Your task to perform on an android device: turn on sleep mode Image 0: 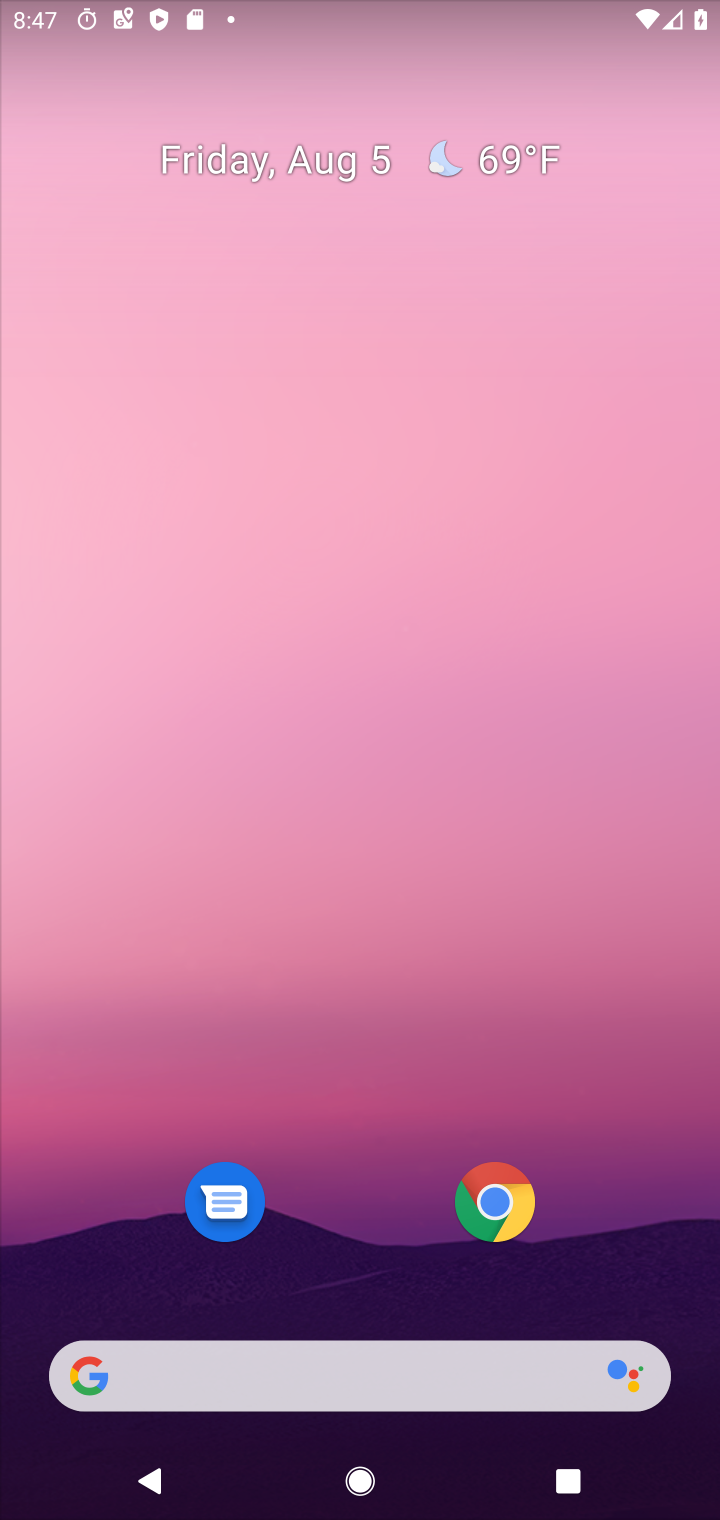
Step 0: press home button
Your task to perform on an android device: turn on sleep mode Image 1: 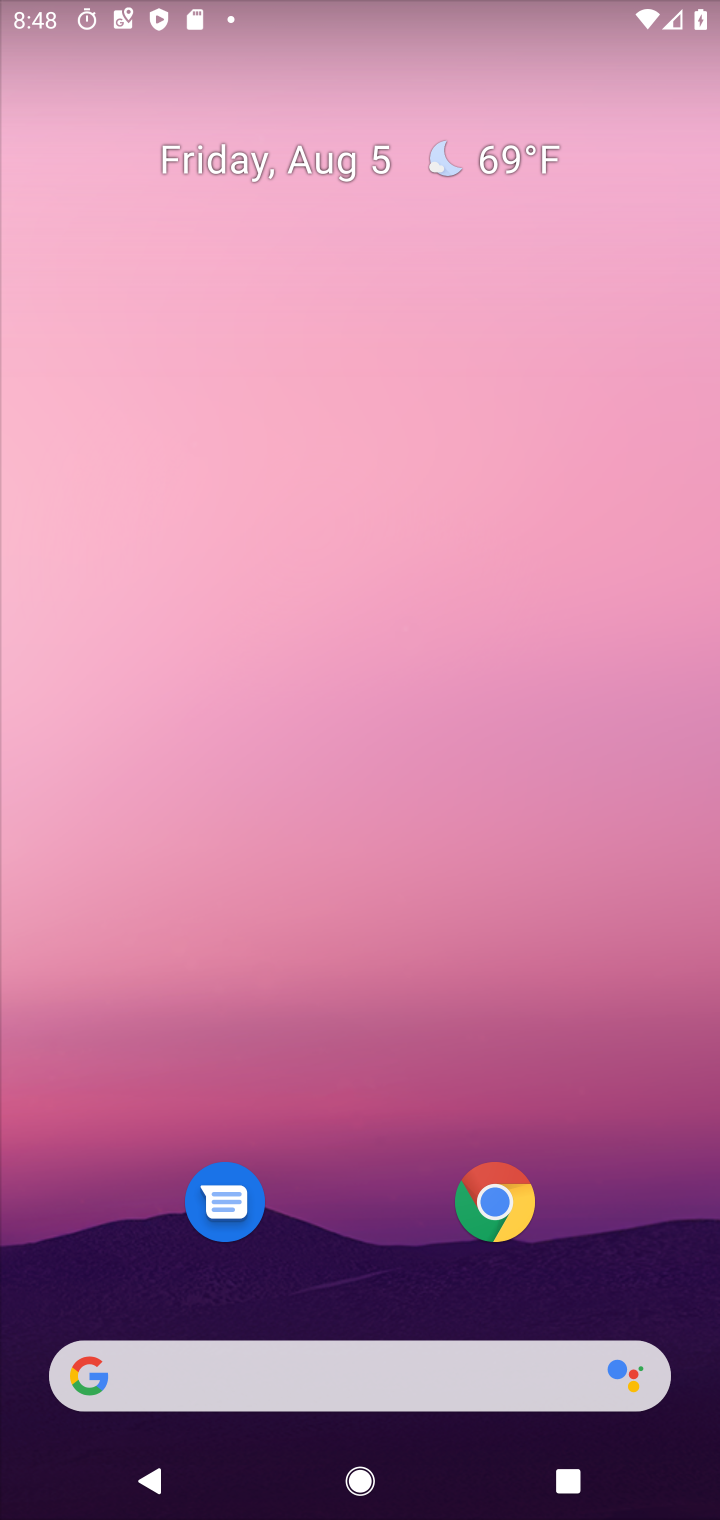
Step 1: drag from (418, 1132) to (314, 209)
Your task to perform on an android device: turn on sleep mode Image 2: 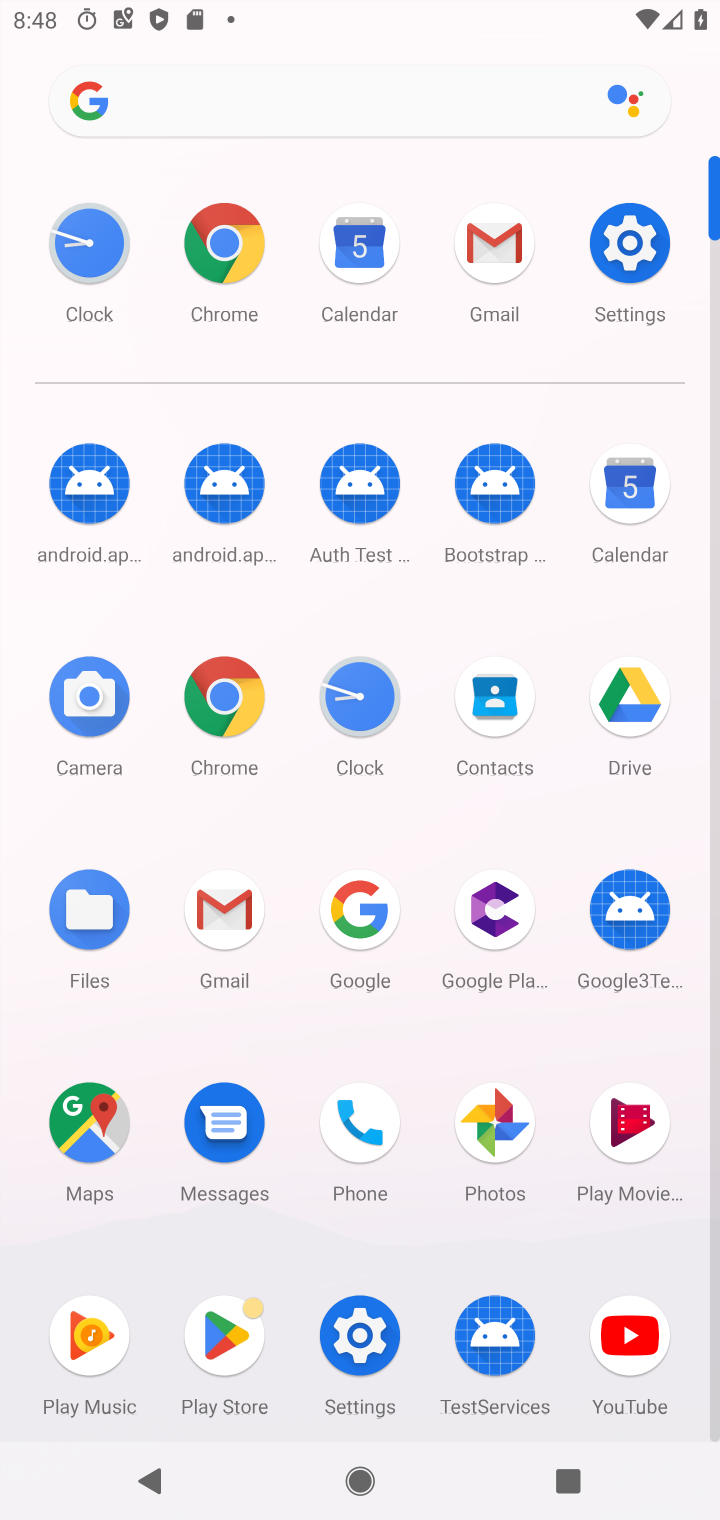
Step 2: click (606, 240)
Your task to perform on an android device: turn on sleep mode Image 3: 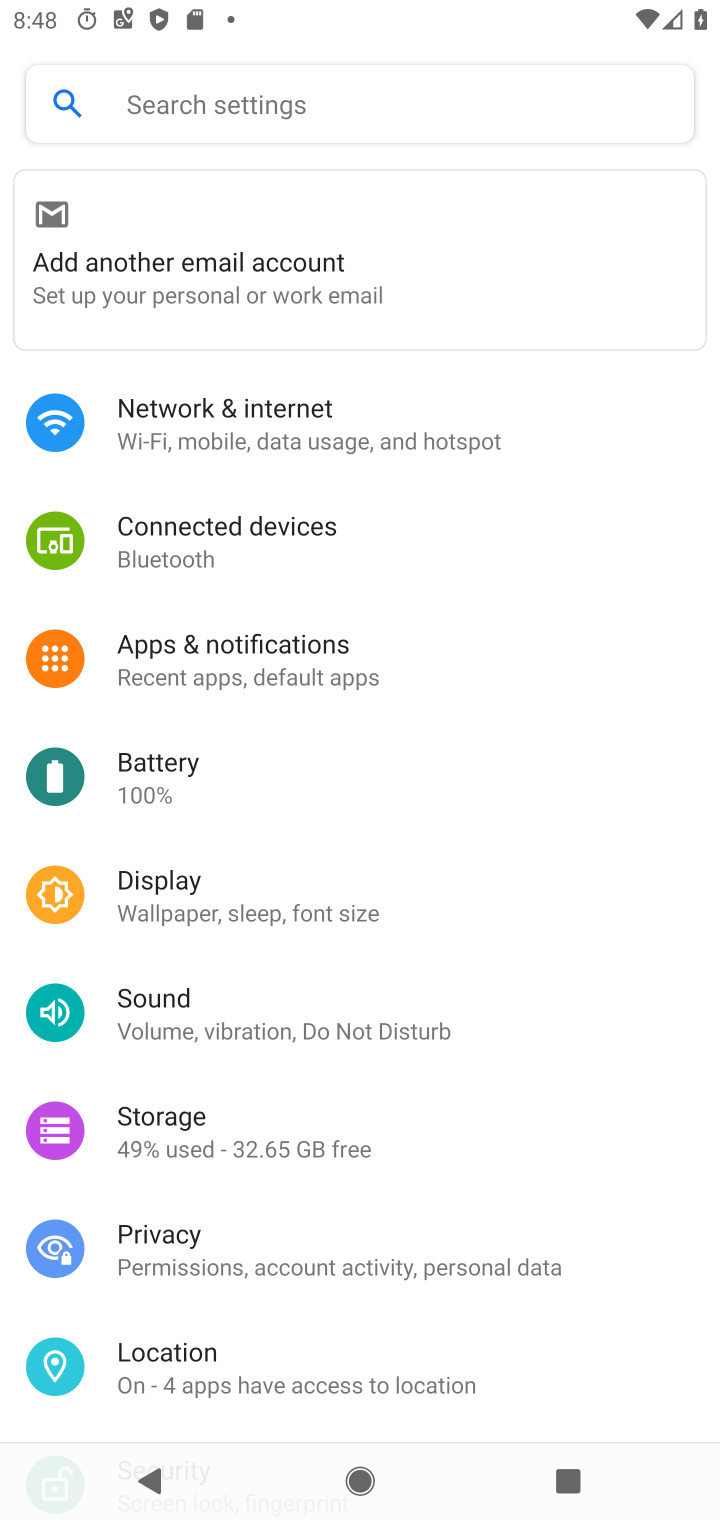
Step 3: click (208, 891)
Your task to perform on an android device: turn on sleep mode Image 4: 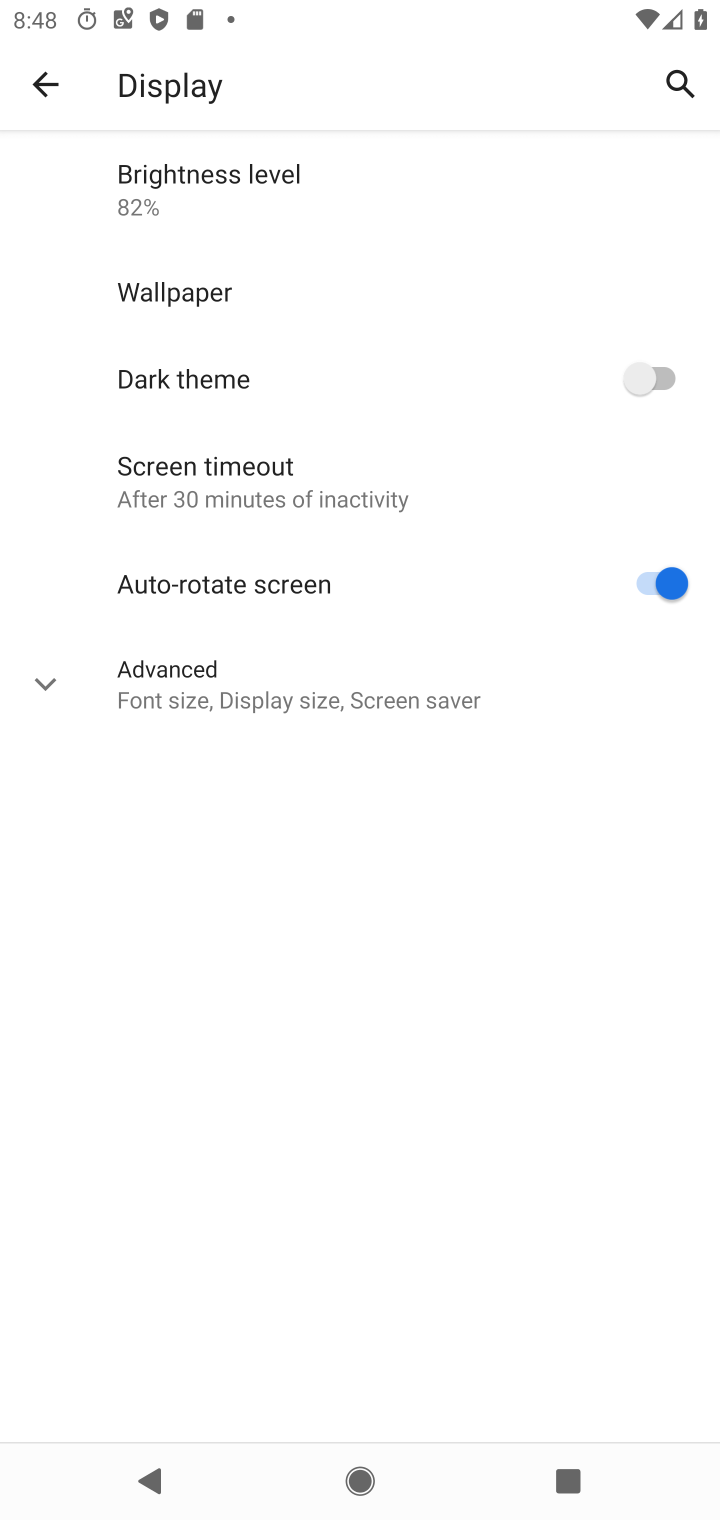
Step 4: click (268, 715)
Your task to perform on an android device: turn on sleep mode Image 5: 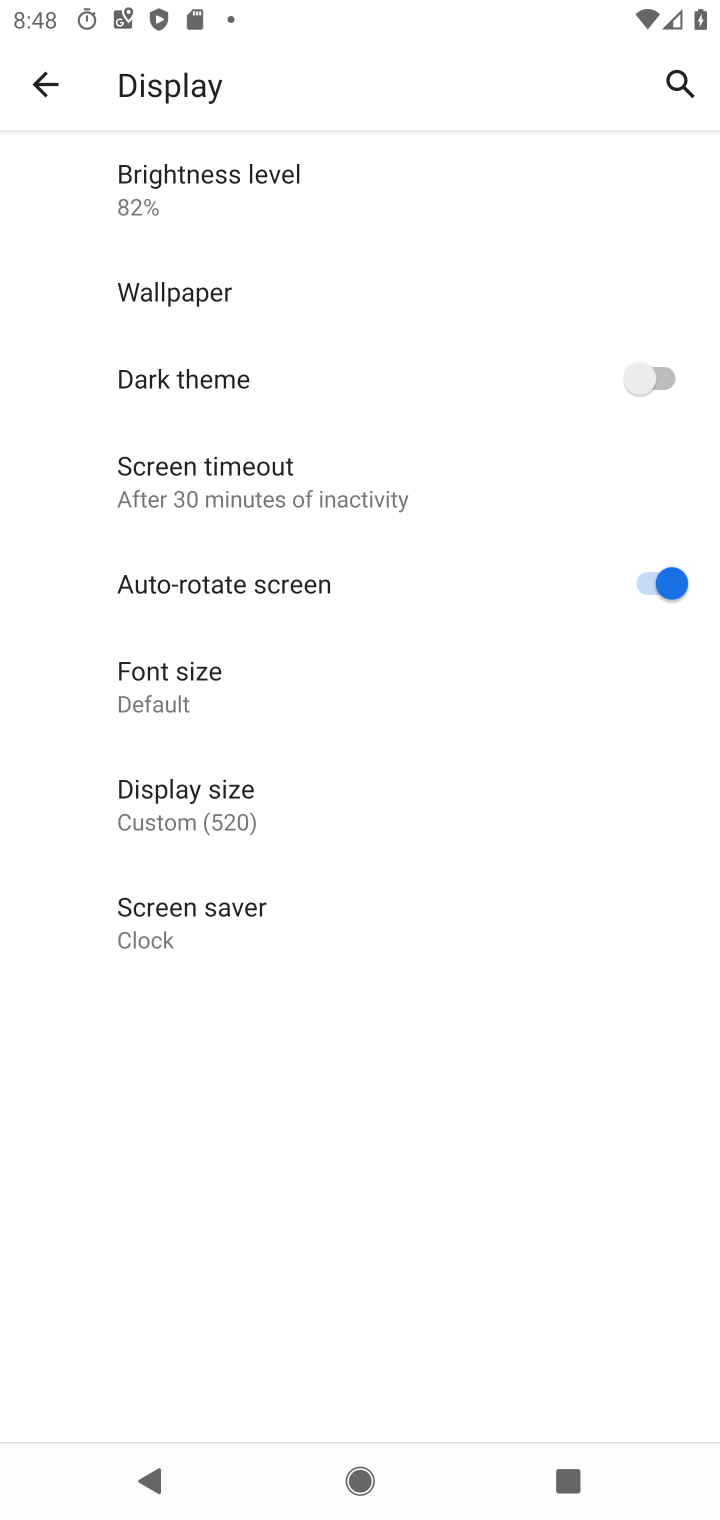
Step 5: task complete